Your task to perform on an android device: Go to privacy settings Image 0: 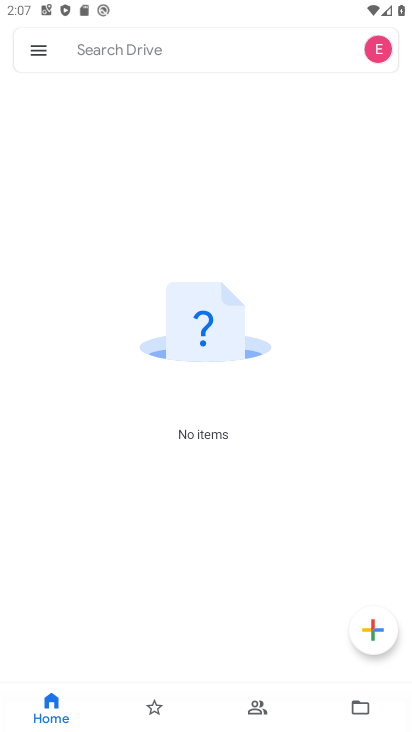
Step 0: press home button
Your task to perform on an android device: Go to privacy settings Image 1: 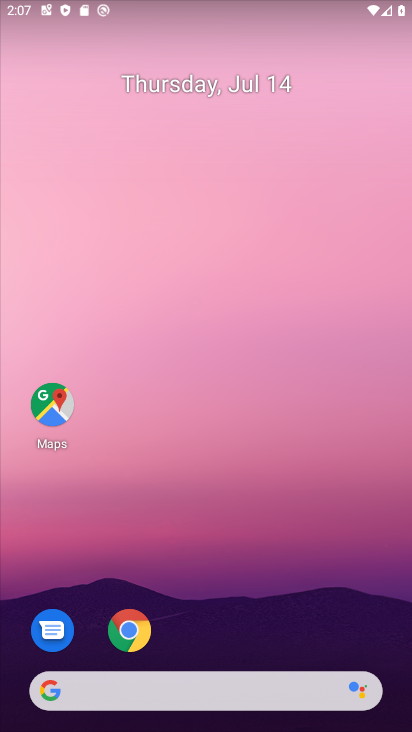
Step 1: drag from (274, 516) to (293, 211)
Your task to perform on an android device: Go to privacy settings Image 2: 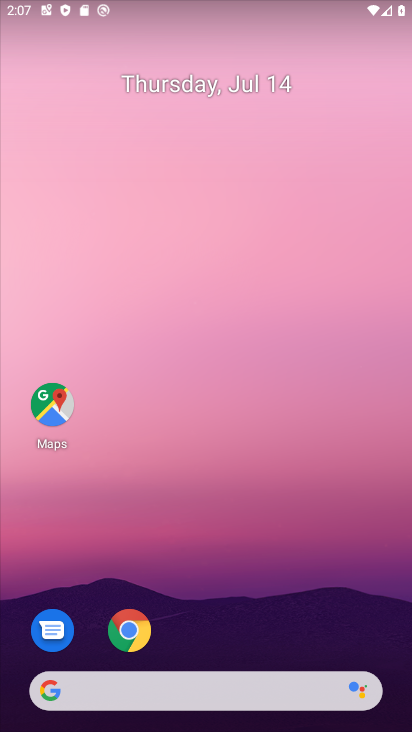
Step 2: drag from (253, 627) to (271, 117)
Your task to perform on an android device: Go to privacy settings Image 3: 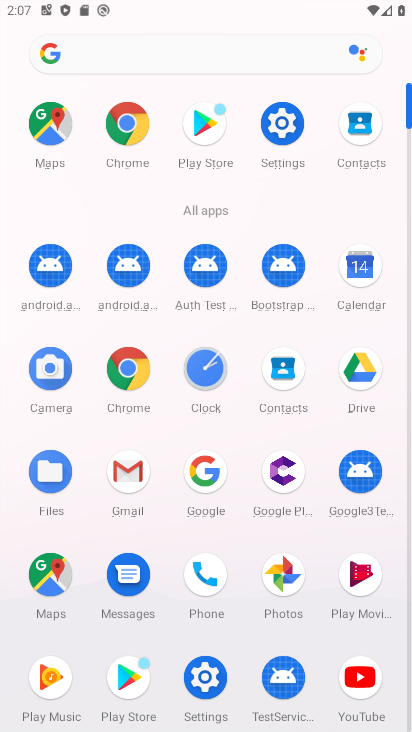
Step 3: click (283, 134)
Your task to perform on an android device: Go to privacy settings Image 4: 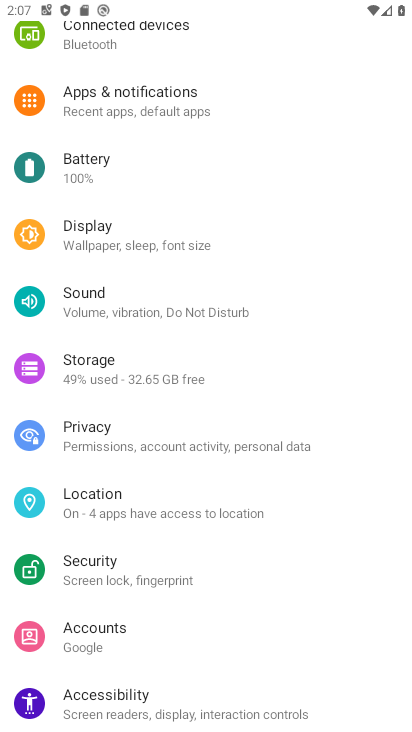
Step 4: click (185, 436)
Your task to perform on an android device: Go to privacy settings Image 5: 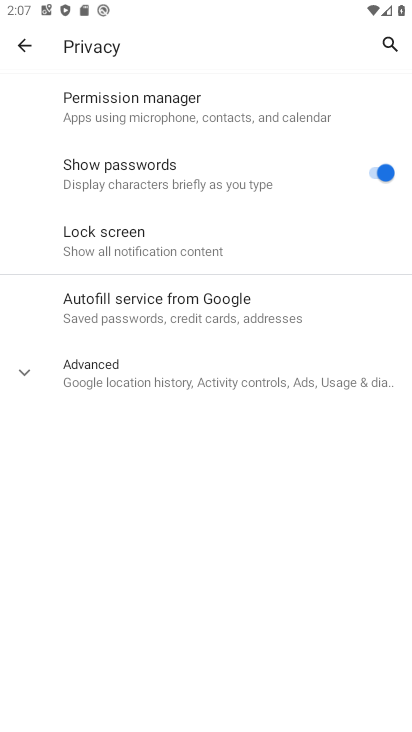
Step 5: task complete